Your task to perform on an android device: Open Chrome and go to the settings page Image 0: 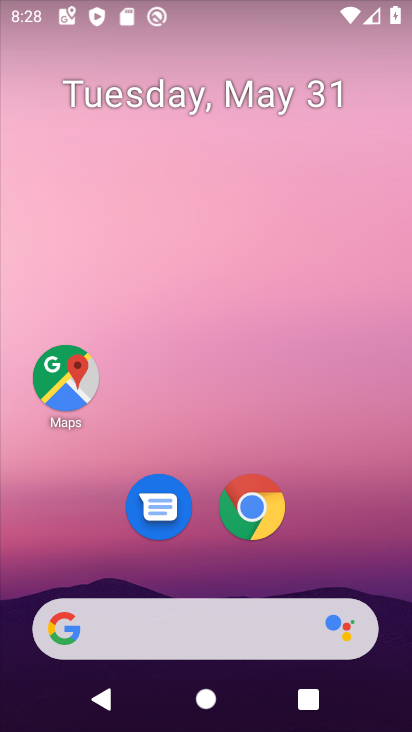
Step 0: click (255, 513)
Your task to perform on an android device: Open Chrome and go to the settings page Image 1: 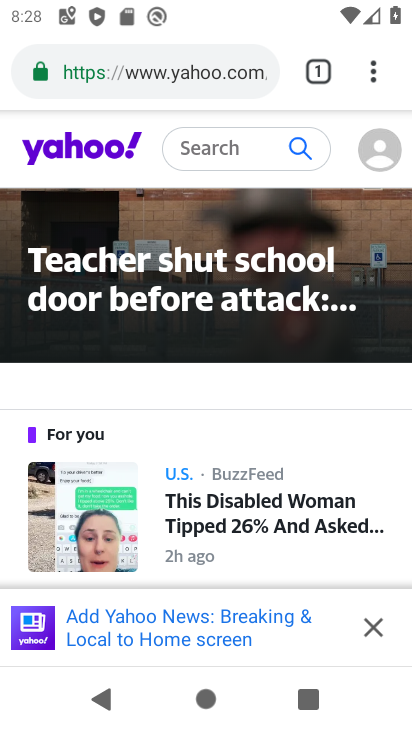
Step 1: task complete